Your task to perform on an android device: Open the calendar and show me this week's events? Image 0: 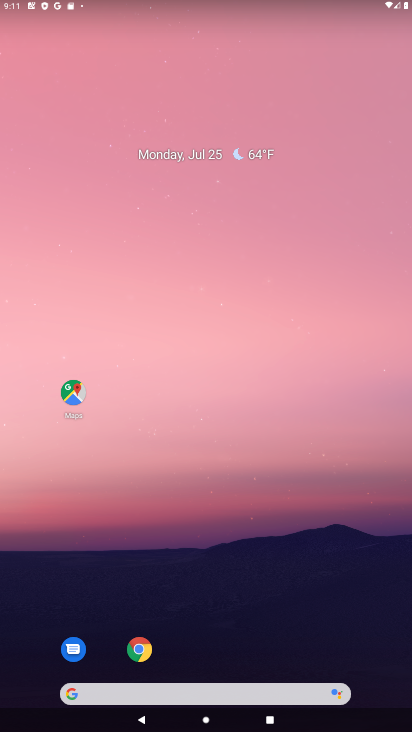
Step 0: drag from (308, 638) to (194, 10)
Your task to perform on an android device: Open the calendar and show me this week's events? Image 1: 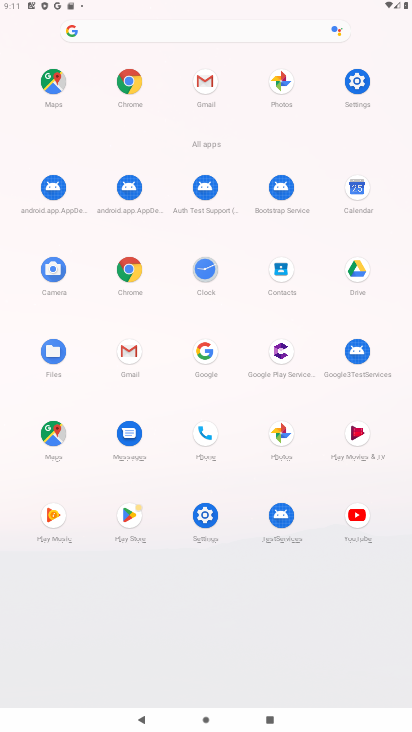
Step 1: click (357, 183)
Your task to perform on an android device: Open the calendar and show me this week's events? Image 2: 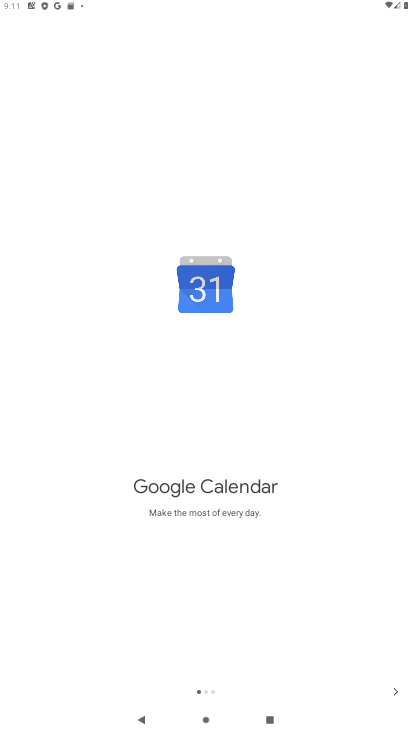
Step 2: click (391, 690)
Your task to perform on an android device: Open the calendar and show me this week's events? Image 3: 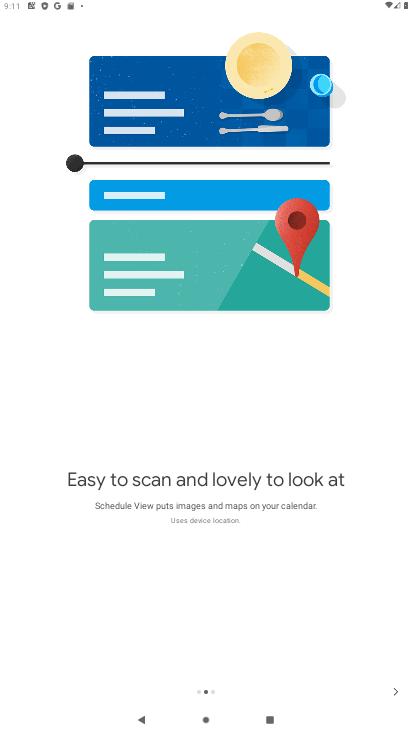
Step 3: click (391, 690)
Your task to perform on an android device: Open the calendar and show me this week's events? Image 4: 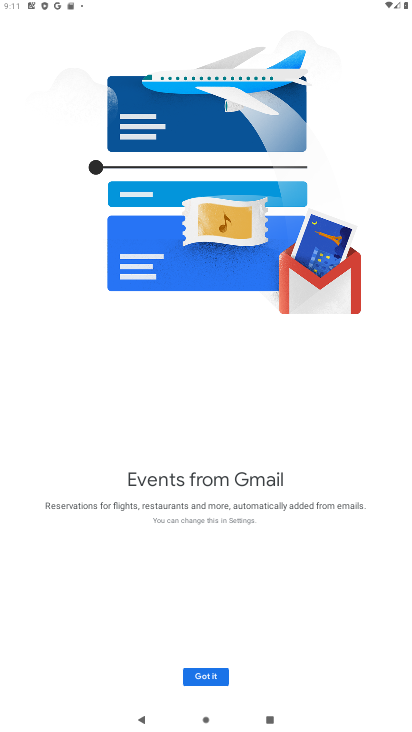
Step 4: click (213, 678)
Your task to perform on an android device: Open the calendar and show me this week's events? Image 5: 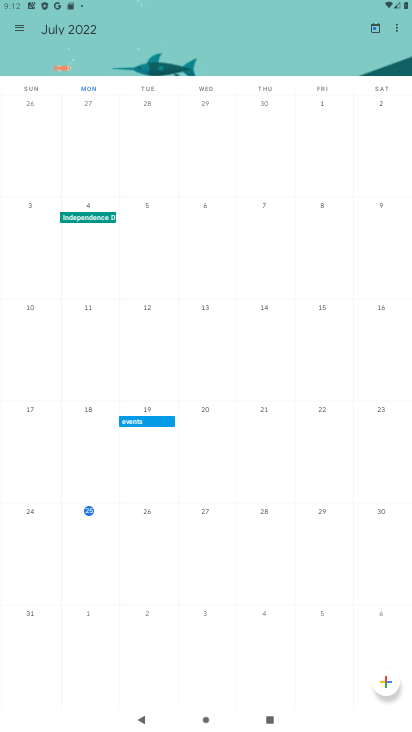
Step 5: click (24, 32)
Your task to perform on an android device: Open the calendar and show me this week's events? Image 6: 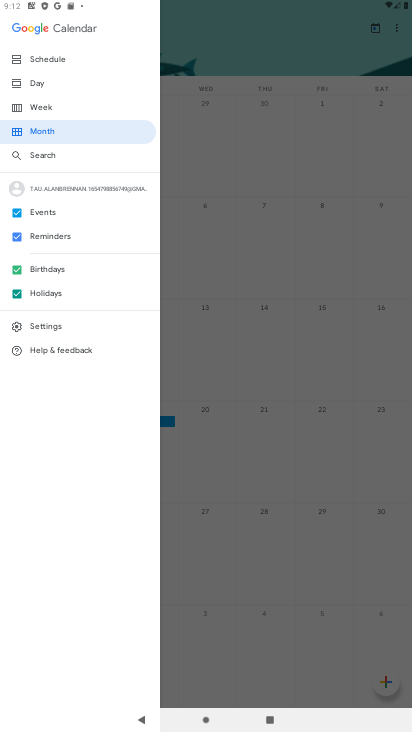
Step 6: click (52, 102)
Your task to perform on an android device: Open the calendar and show me this week's events? Image 7: 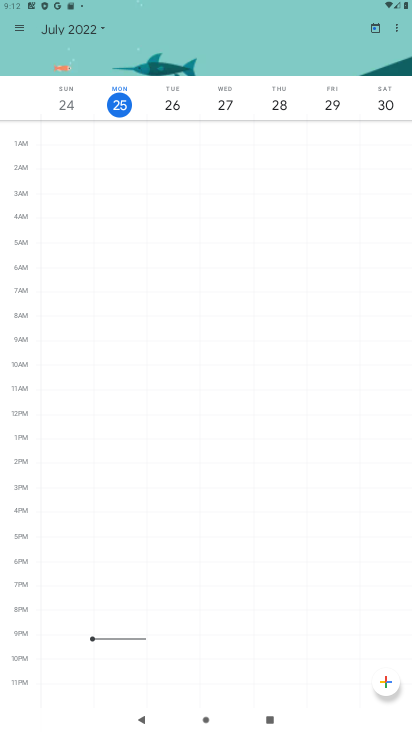
Step 7: task complete